Your task to perform on an android device: What's on my calendar tomorrow? Image 0: 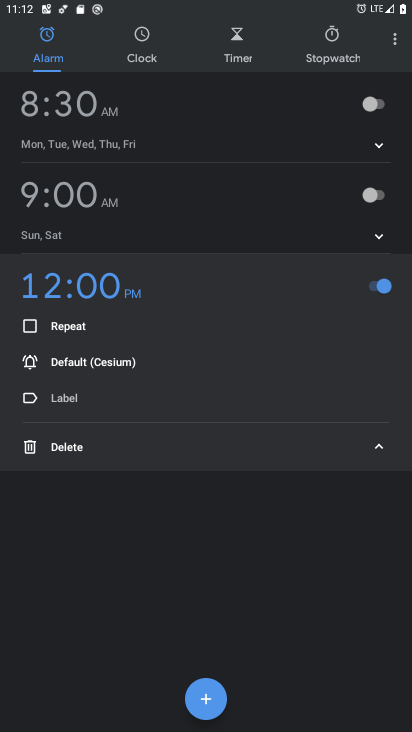
Step 0: press home button
Your task to perform on an android device: What's on my calendar tomorrow? Image 1: 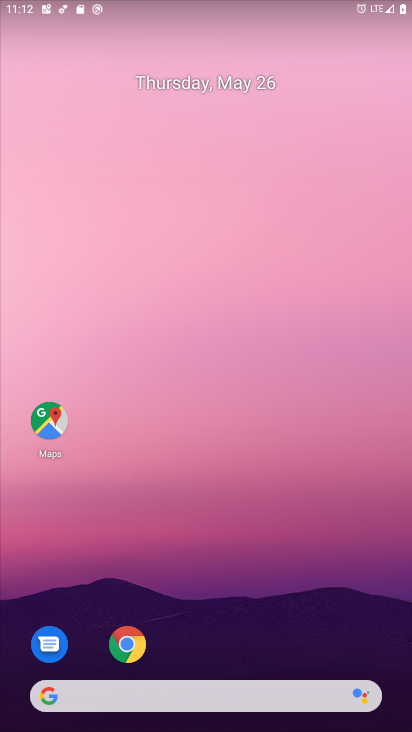
Step 1: drag from (302, 590) to (309, 254)
Your task to perform on an android device: What's on my calendar tomorrow? Image 2: 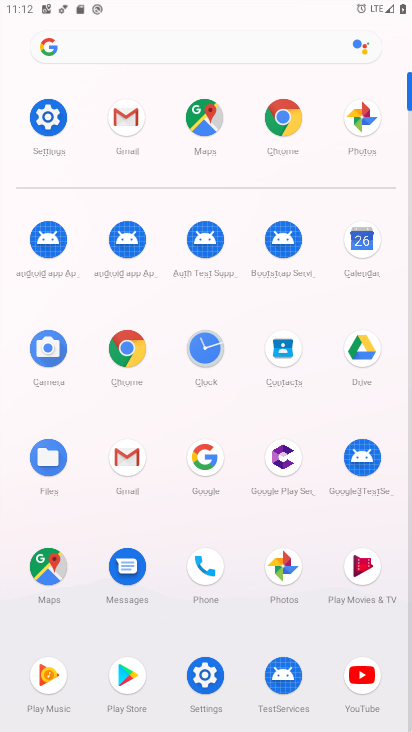
Step 2: click (366, 257)
Your task to perform on an android device: What's on my calendar tomorrow? Image 3: 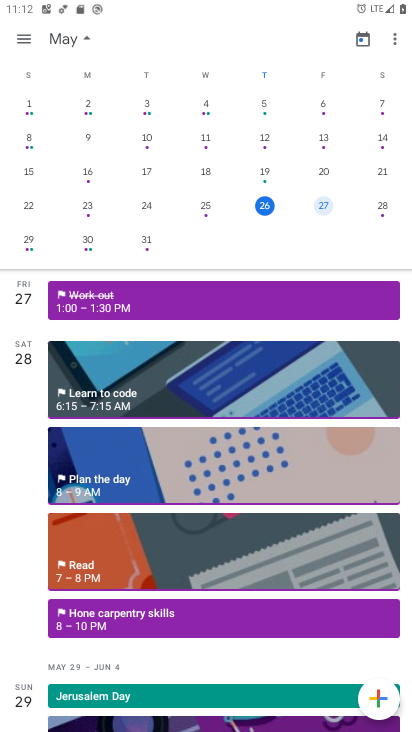
Step 3: click (366, 257)
Your task to perform on an android device: What's on my calendar tomorrow? Image 4: 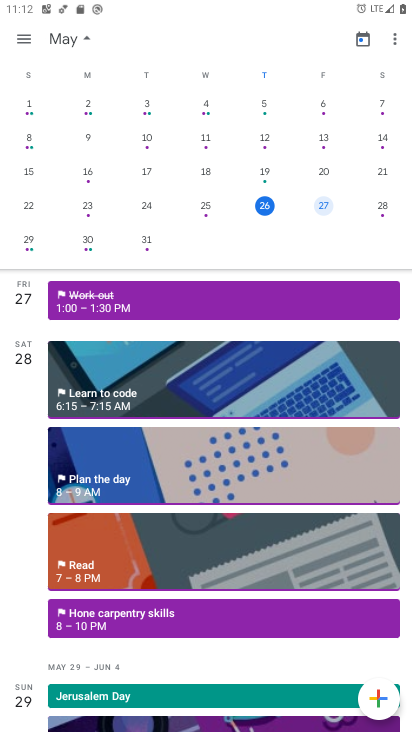
Step 4: click (388, 208)
Your task to perform on an android device: What's on my calendar tomorrow? Image 5: 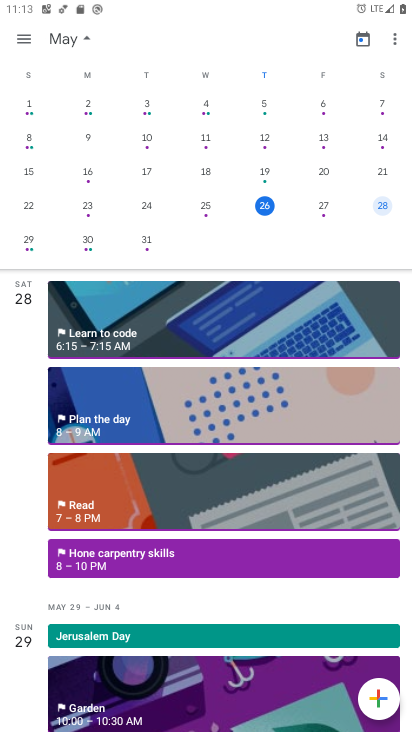
Step 5: task complete